Your task to perform on an android device: read, delete, or share a saved page in the chrome app Image 0: 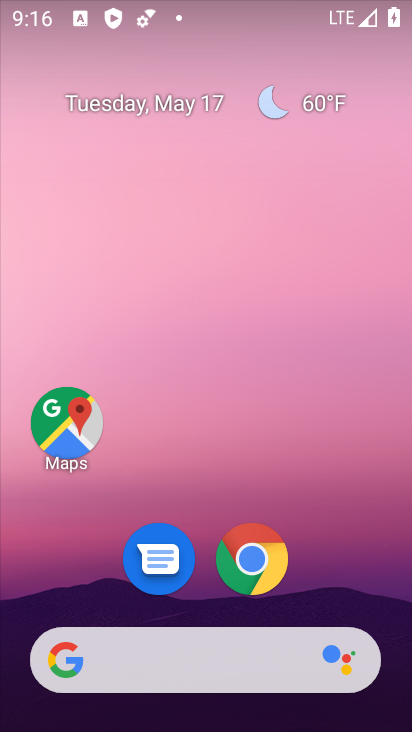
Step 0: click (246, 549)
Your task to perform on an android device: read, delete, or share a saved page in the chrome app Image 1: 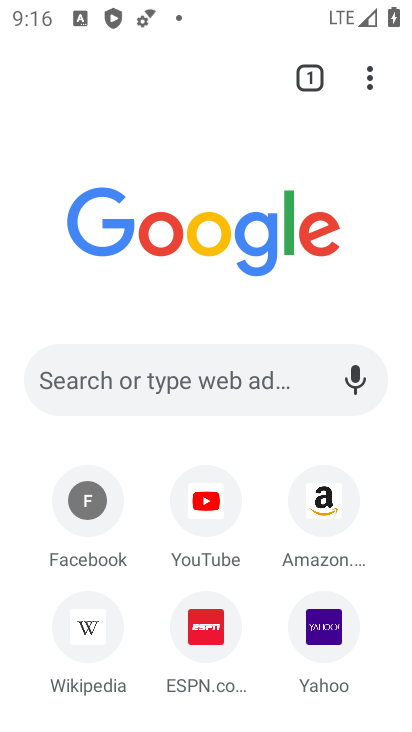
Step 1: drag from (364, 77) to (105, 487)
Your task to perform on an android device: read, delete, or share a saved page in the chrome app Image 2: 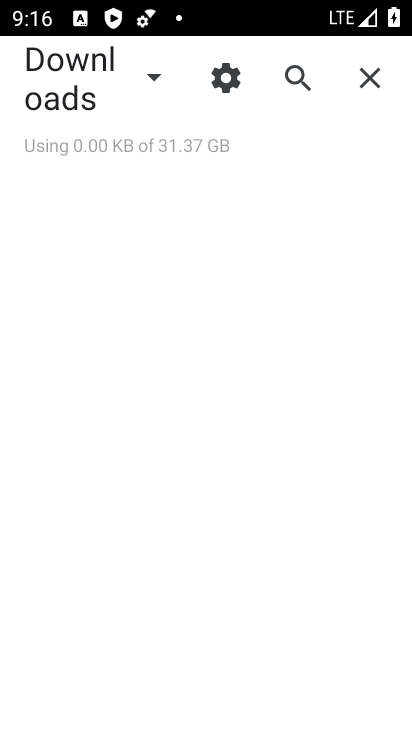
Step 2: click (144, 69)
Your task to perform on an android device: read, delete, or share a saved page in the chrome app Image 3: 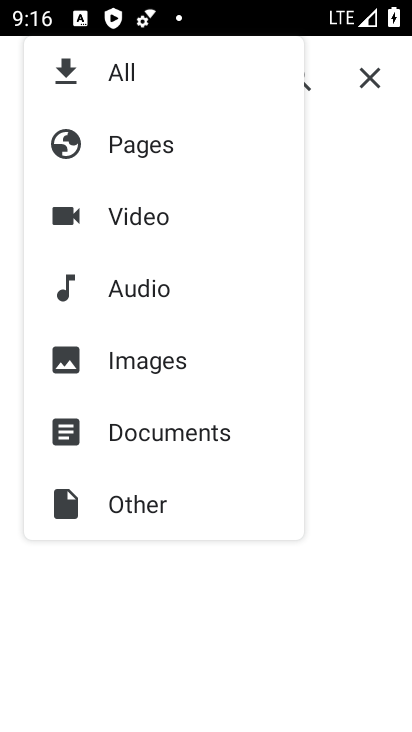
Step 3: click (117, 170)
Your task to perform on an android device: read, delete, or share a saved page in the chrome app Image 4: 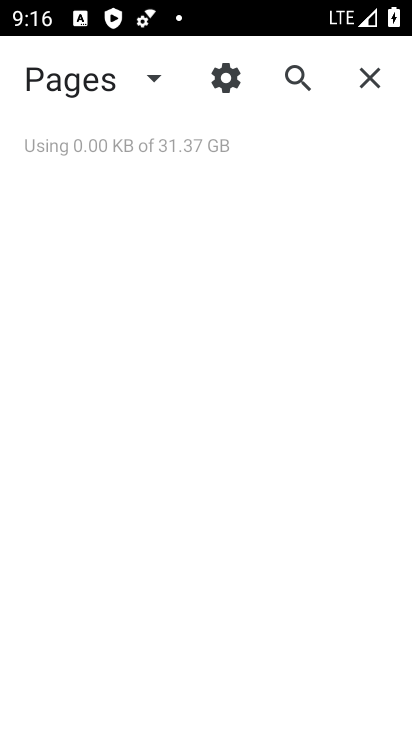
Step 4: task complete